Your task to perform on an android device: delete browsing data in the chrome app Image 0: 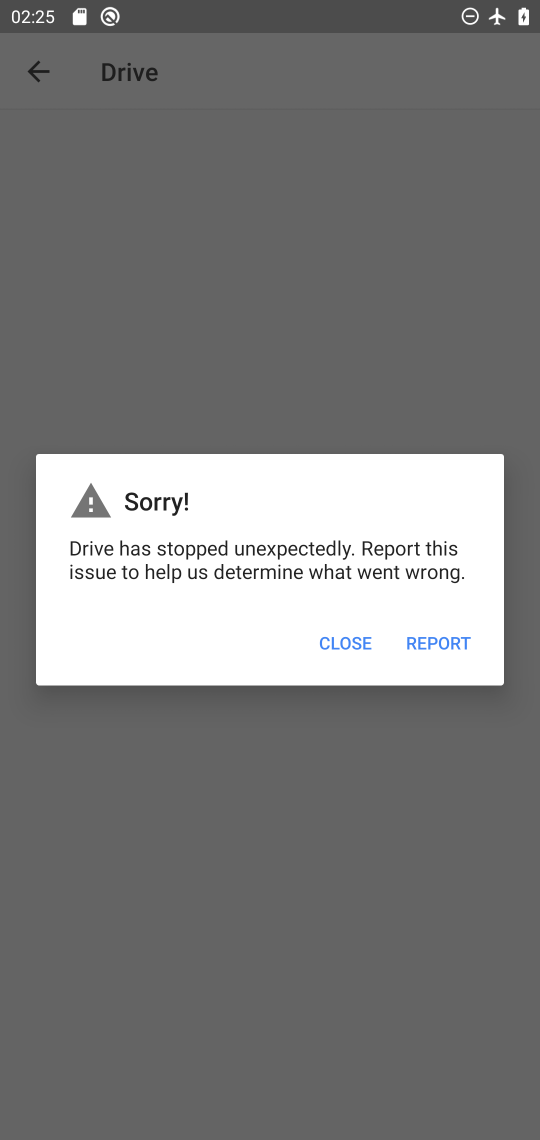
Step 0: press home button
Your task to perform on an android device: delete browsing data in the chrome app Image 1: 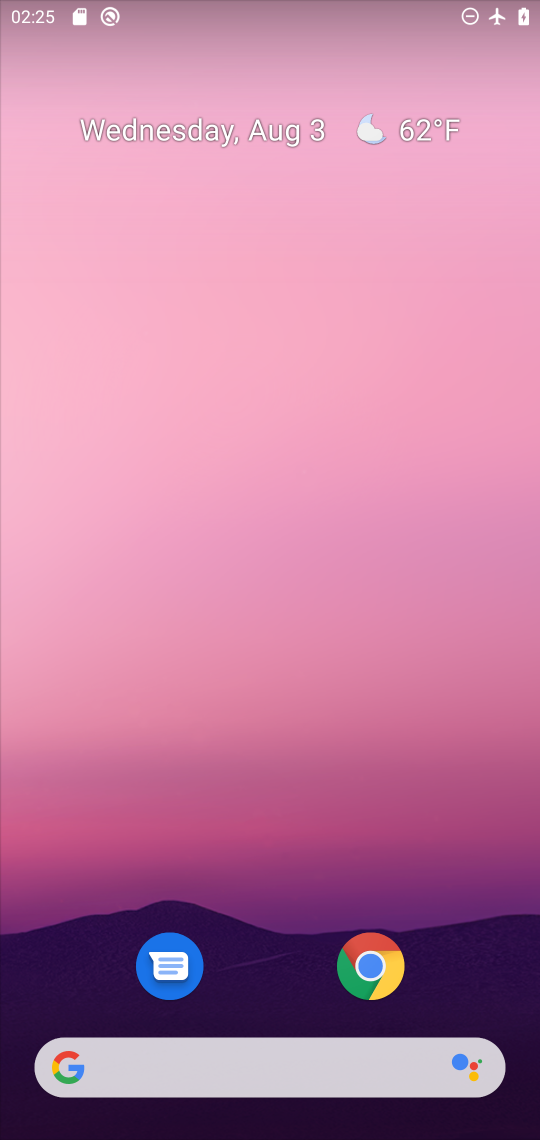
Step 1: click (358, 973)
Your task to perform on an android device: delete browsing data in the chrome app Image 2: 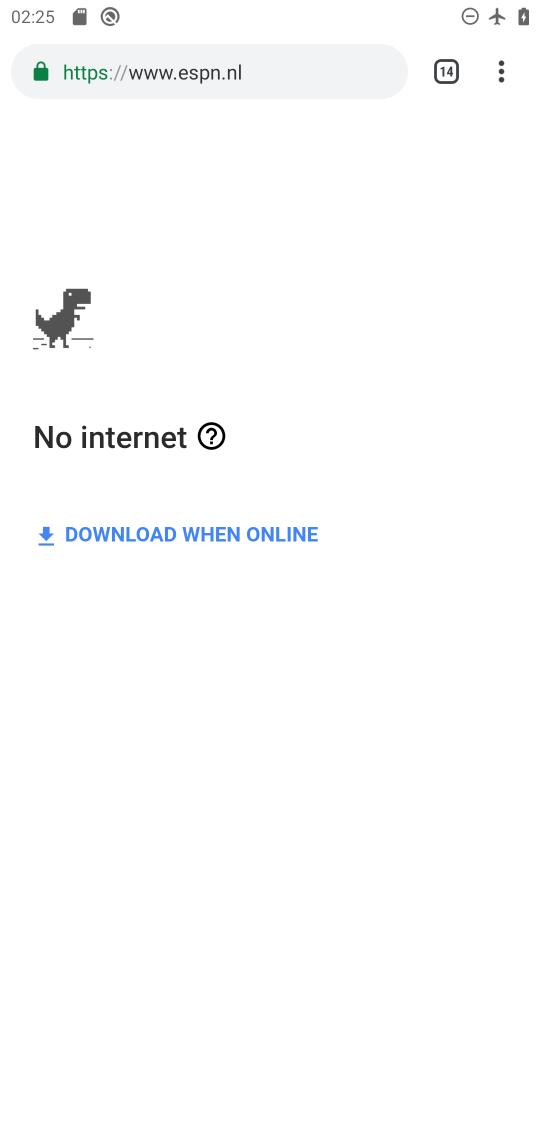
Step 2: click (510, 66)
Your task to perform on an android device: delete browsing data in the chrome app Image 3: 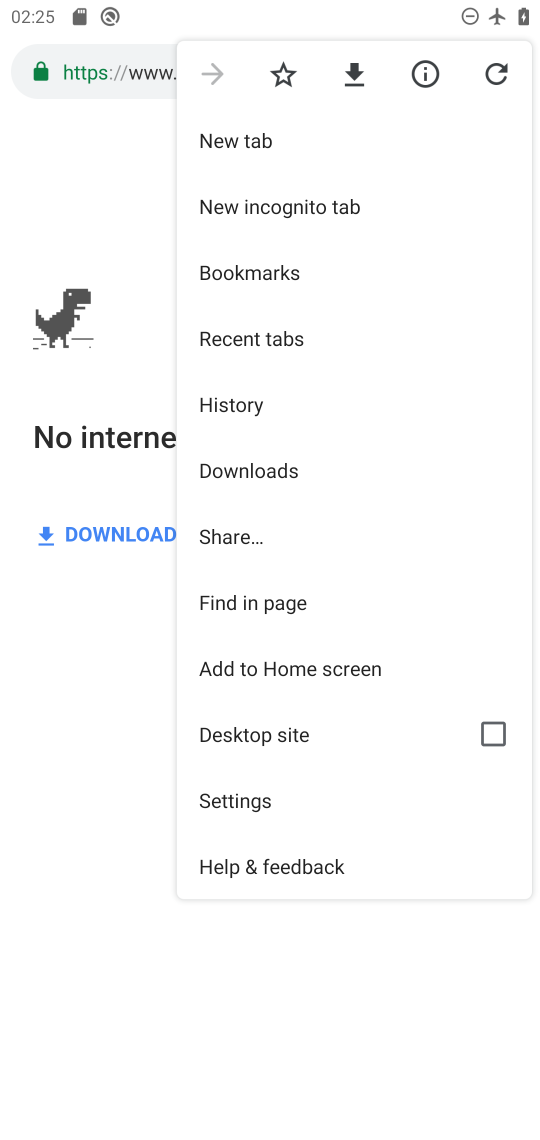
Step 3: click (240, 408)
Your task to perform on an android device: delete browsing data in the chrome app Image 4: 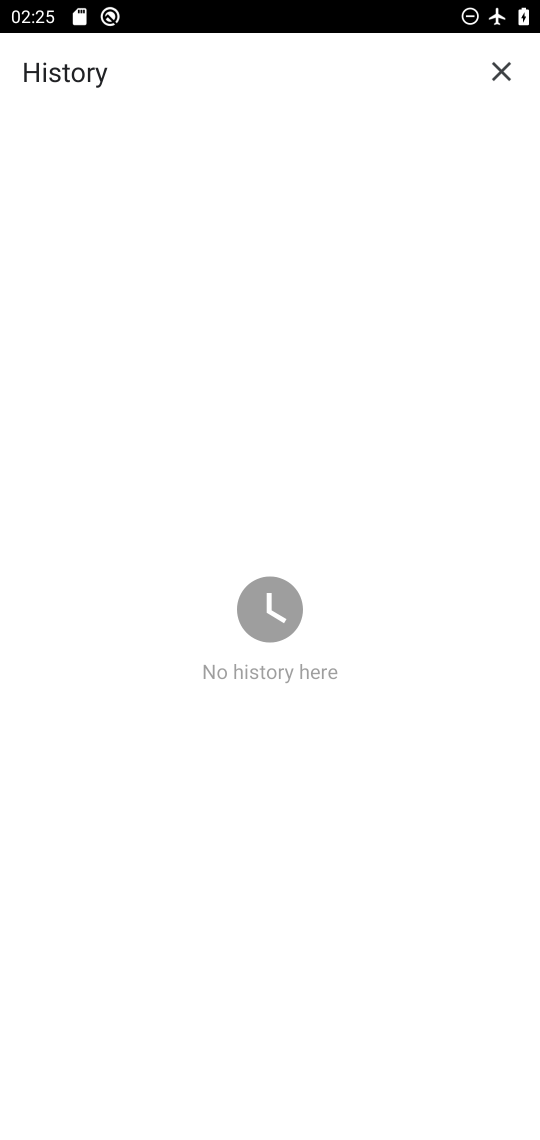
Step 4: task complete